Your task to perform on an android device: find snoozed emails in the gmail app Image 0: 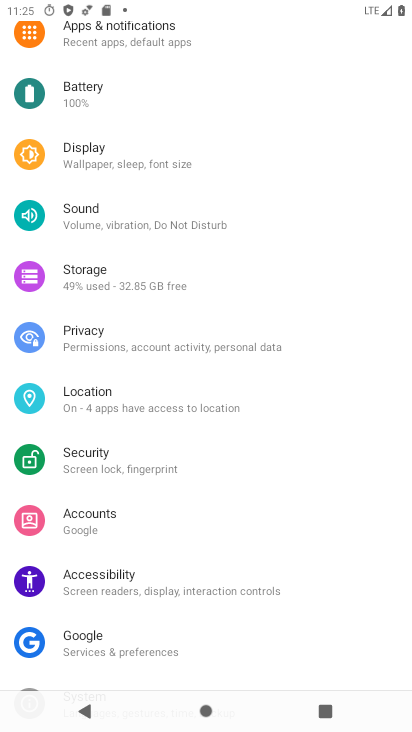
Step 0: press home button
Your task to perform on an android device: find snoozed emails in the gmail app Image 1: 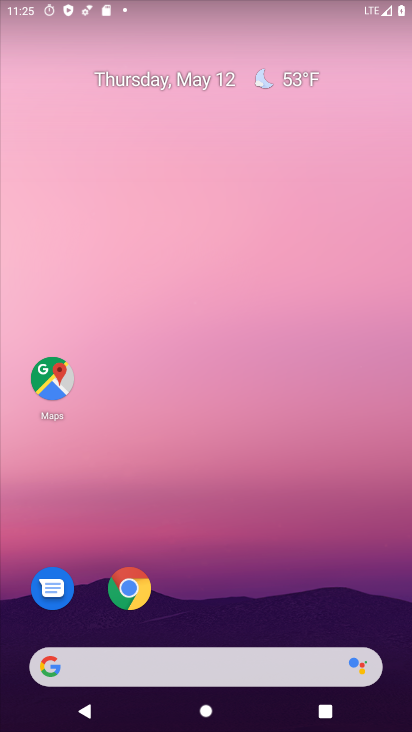
Step 1: drag from (236, 569) to (271, 179)
Your task to perform on an android device: find snoozed emails in the gmail app Image 2: 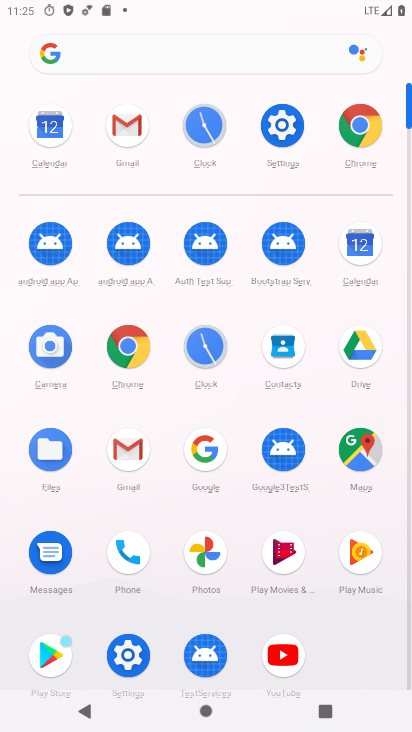
Step 2: click (136, 448)
Your task to perform on an android device: find snoozed emails in the gmail app Image 3: 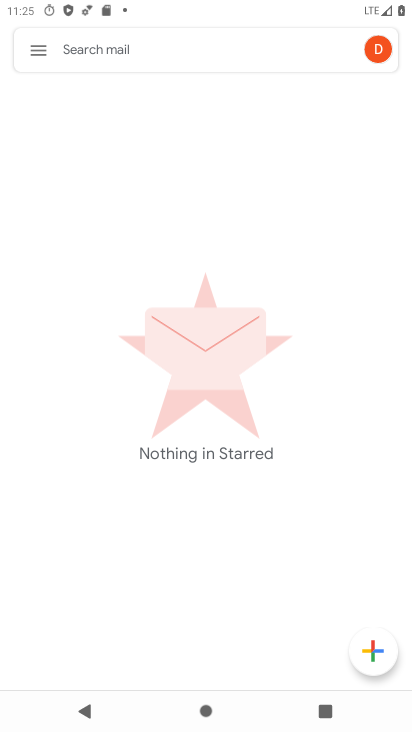
Step 3: click (34, 40)
Your task to perform on an android device: find snoozed emails in the gmail app Image 4: 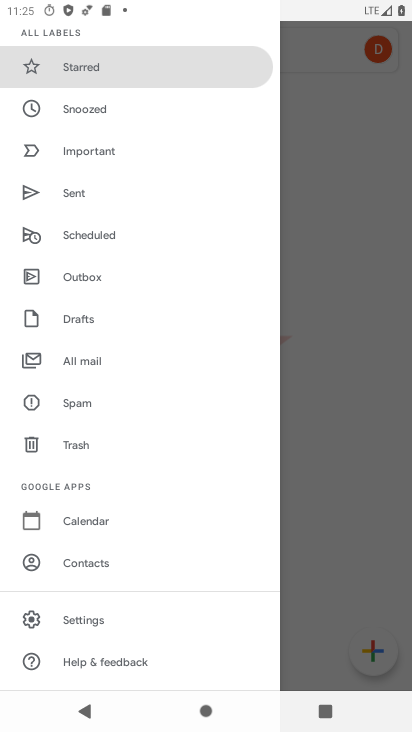
Step 4: drag from (111, 273) to (121, 472)
Your task to perform on an android device: find snoozed emails in the gmail app Image 5: 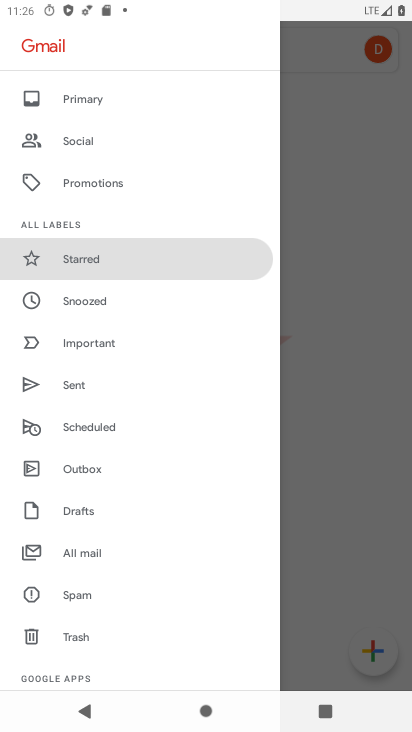
Step 5: click (62, 260)
Your task to perform on an android device: find snoozed emails in the gmail app Image 6: 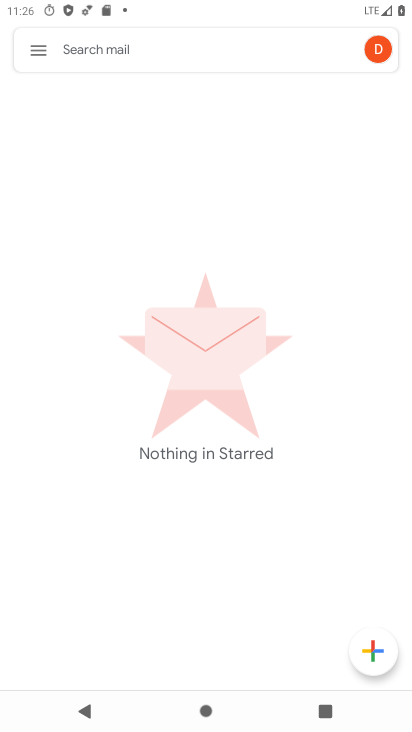
Step 6: task complete